Your task to perform on an android device: What's on my calendar today? Image 0: 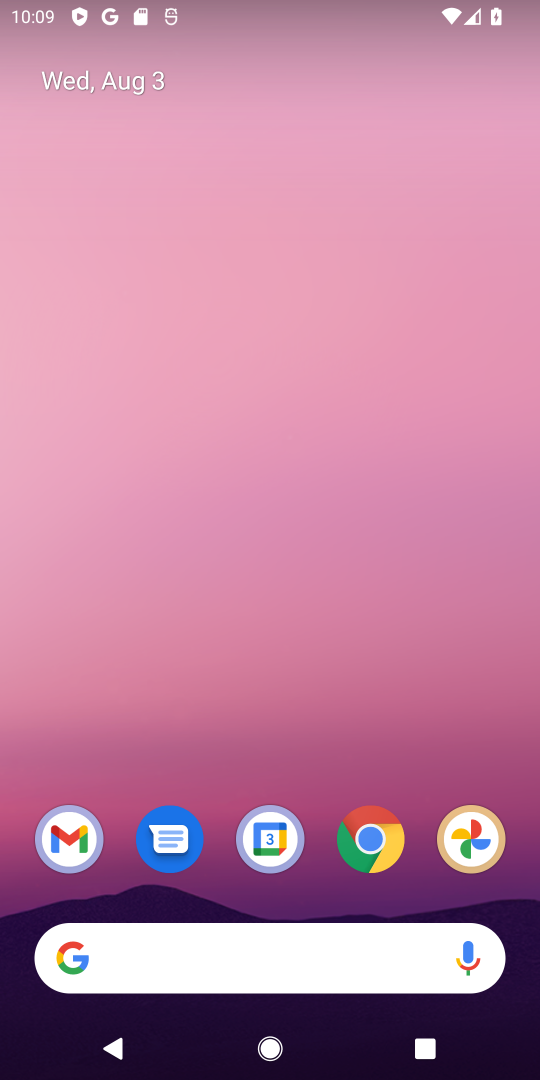
Step 0: drag from (231, 884) to (273, 66)
Your task to perform on an android device: What's on my calendar today? Image 1: 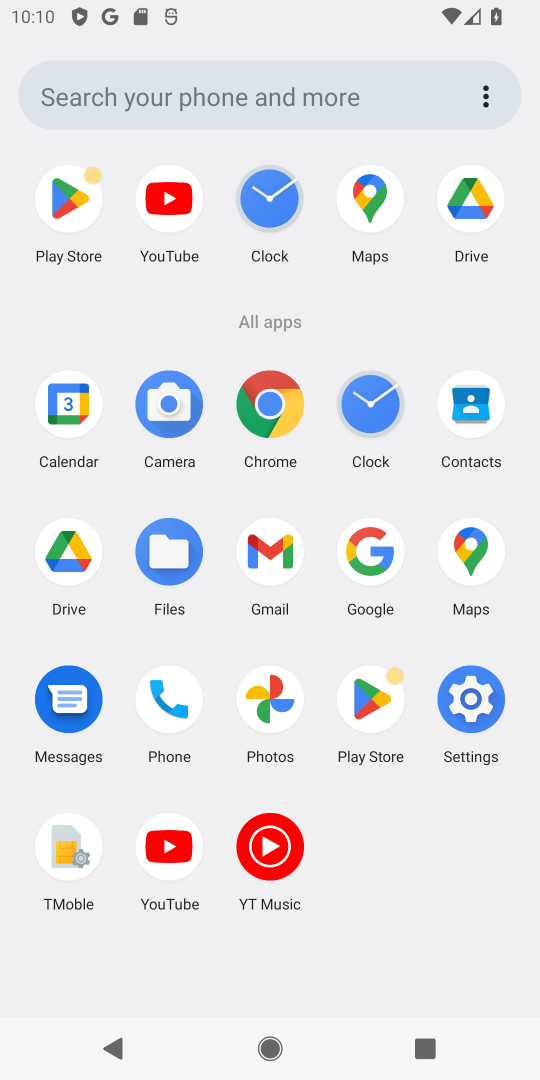
Step 1: click (74, 414)
Your task to perform on an android device: What's on my calendar today? Image 2: 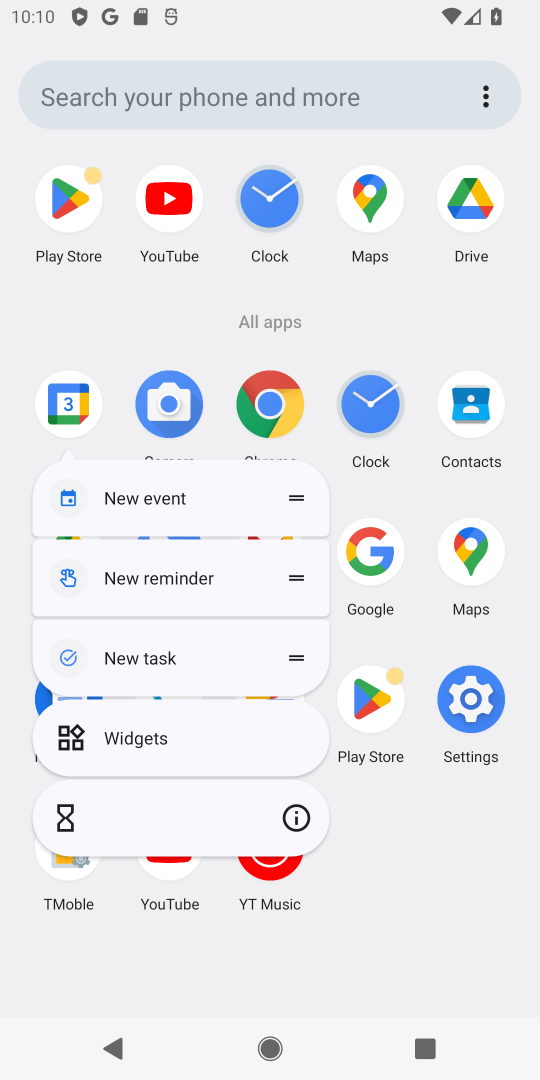
Step 2: click (74, 419)
Your task to perform on an android device: What's on my calendar today? Image 3: 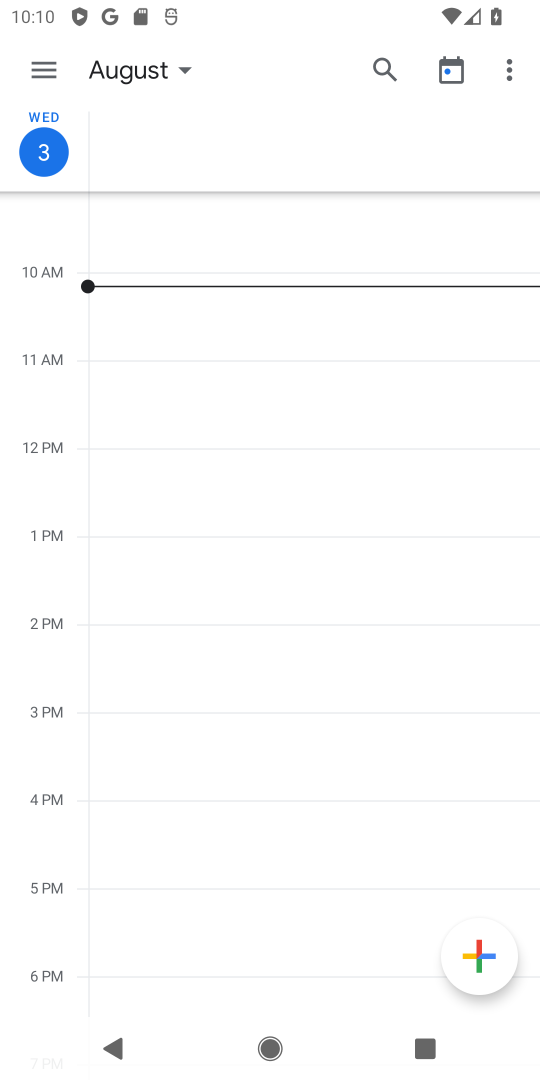
Step 3: click (44, 79)
Your task to perform on an android device: What's on my calendar today? Image 4: 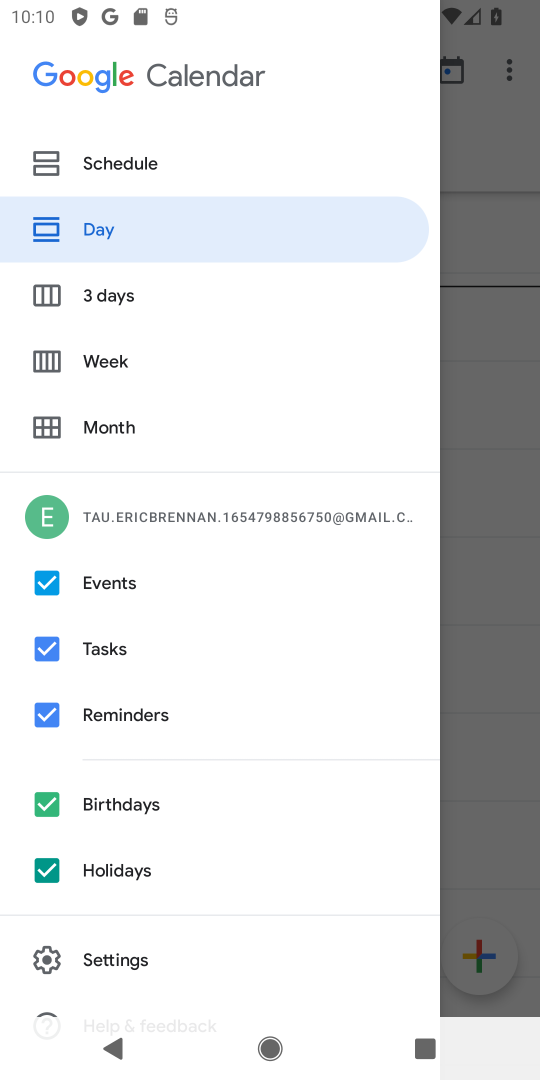
Step 4: click (194, 228)
Your task to perform on an android device: What's on my calendar today? Image 5: 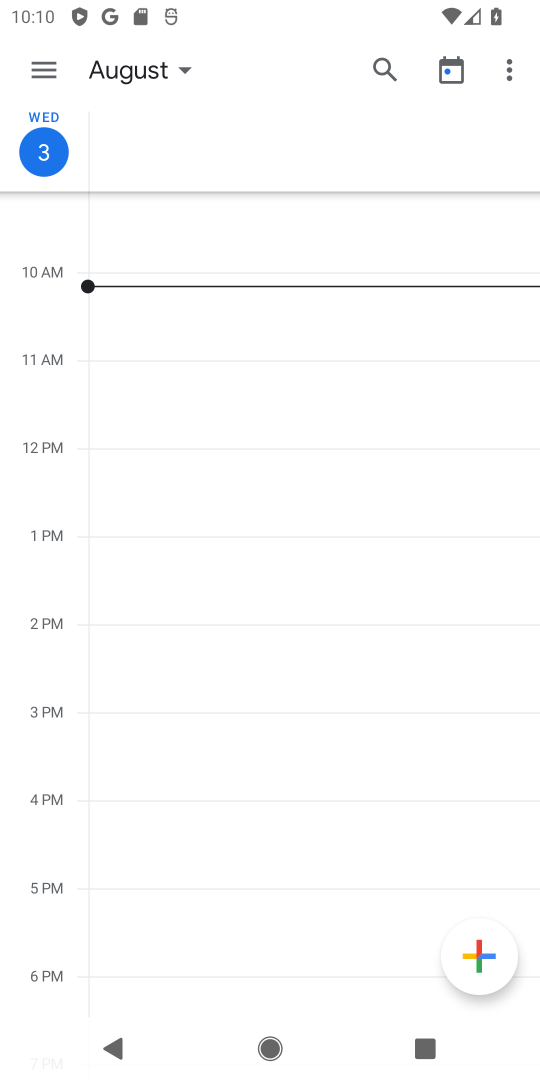
Step 5: task complete